Your task to perform on an android device: What's the weather today? Image 0: 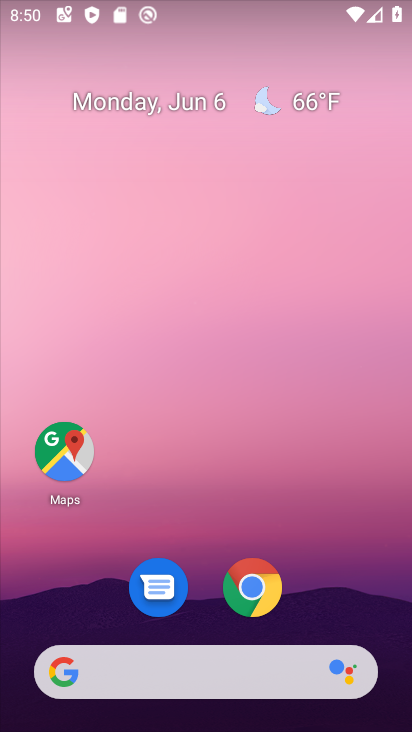
Step 0: click (310, 102)
Your task to perform on an android device: What's the weather today? Image 1: 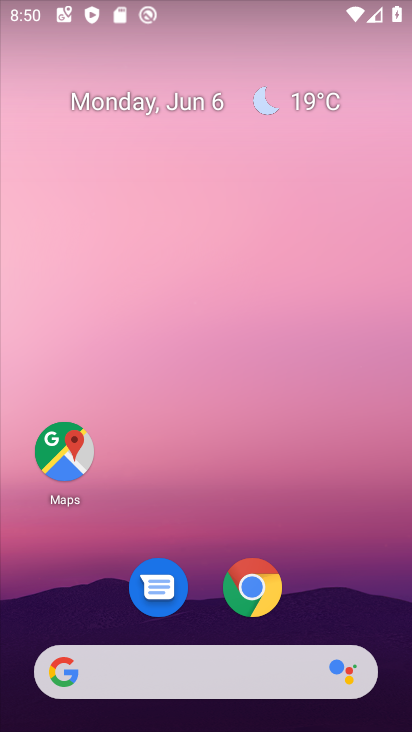
Step 1: click (285, 113)
Your task to perform on an android device: What's the weather today? Image 2: 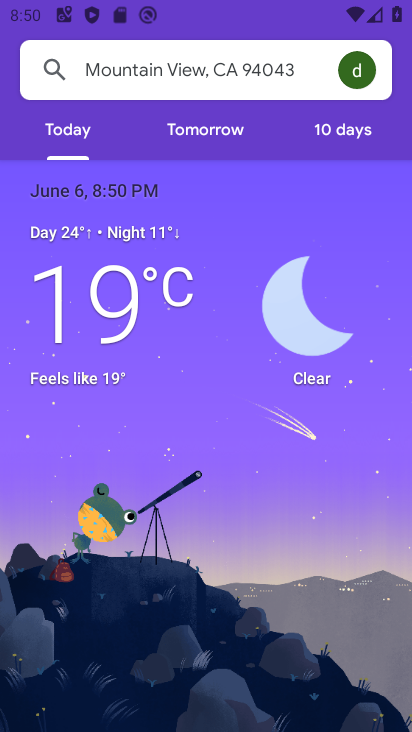
Step 2: task complete